Your task to perform on an android device: Go to wifi settings Image 0: 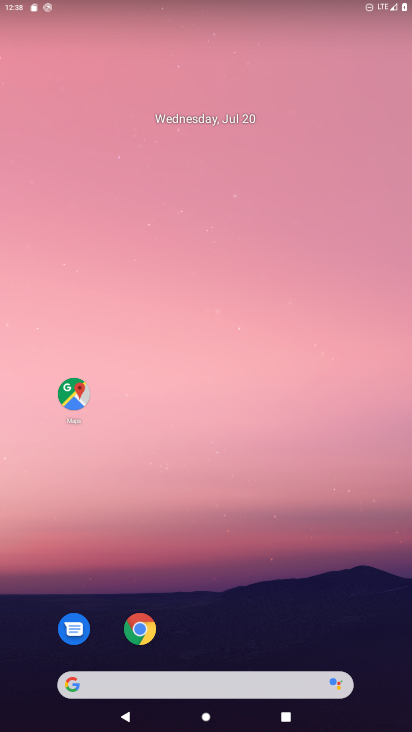
Step 0: drag from (205, 438) to (299, 1)
Your task to perform on an android device: Go to wifi settings Image 1: 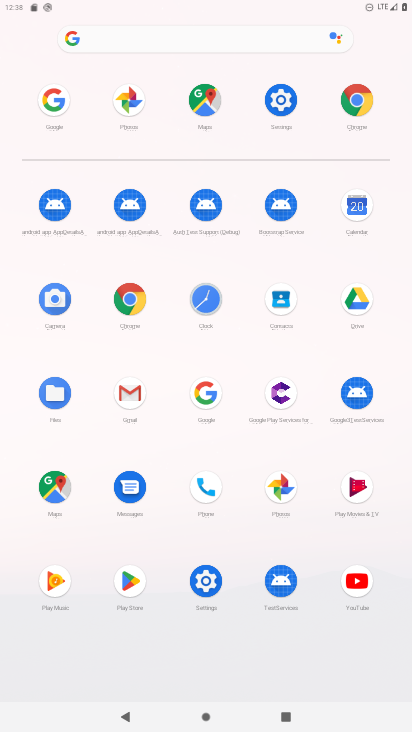
Step 1: click (279, 96)
Your task to perform on an android device: Go to wifi settings Image 2: 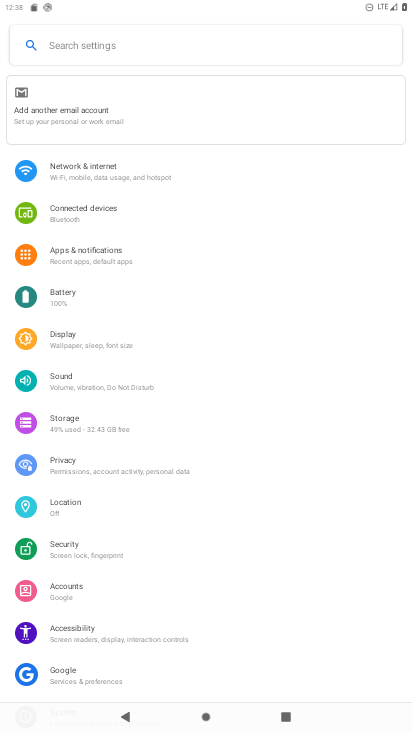
Step 2: click (90, 169)
Your task to perform on an android device: Go to wifi settings Image 3: 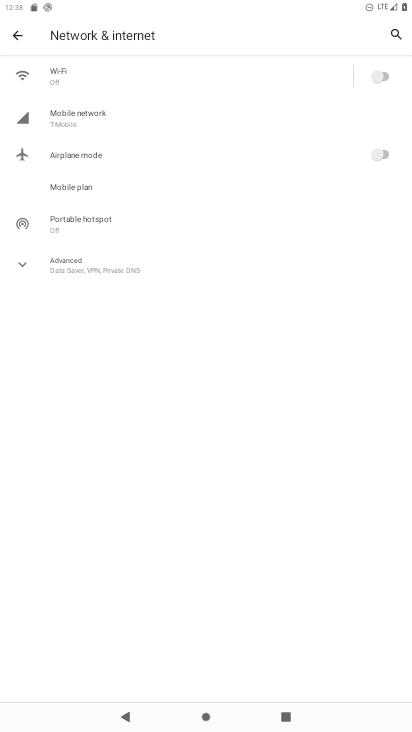
Step 3: click (63, 78)
Your task to perform on an android device: Go to wifi settings Image 4: 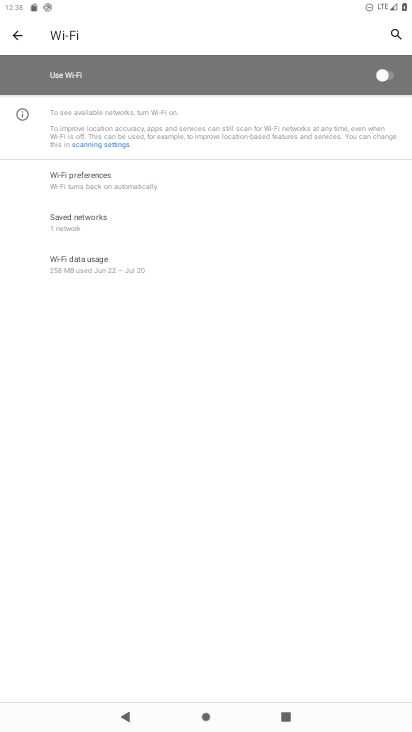
Step 4: task complete